Your task to perform on an android device: Go to notification settings Image 0: 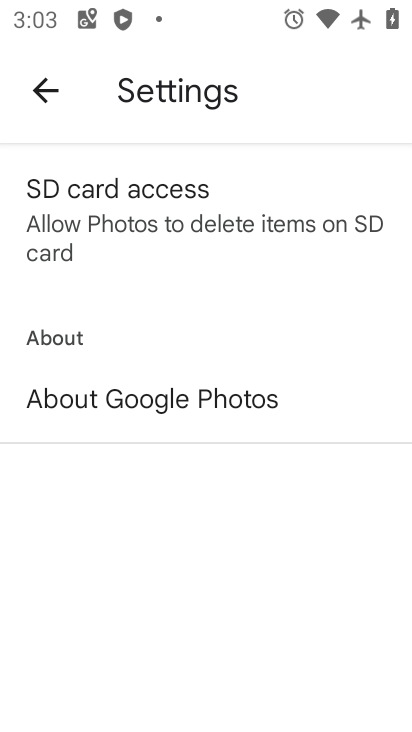
Step 0: press back button
Your task to perform on an android device: Go to notification settings Image 1: 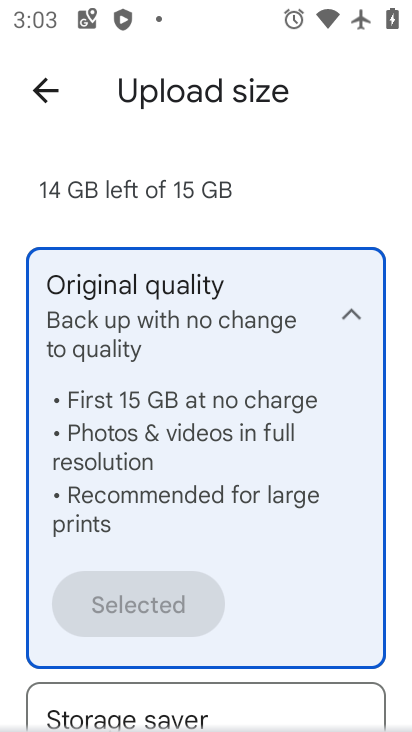
Step 1: press home button
Your task to perform on an android device: Go to notification settings Image 2: 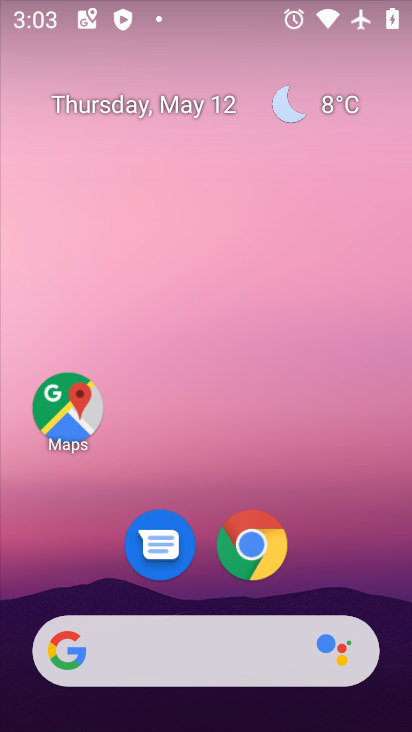
Step 2: drag from (396, 648) to (321, 139)
Your task to perform on an android device: Go to notification settings Image 3: 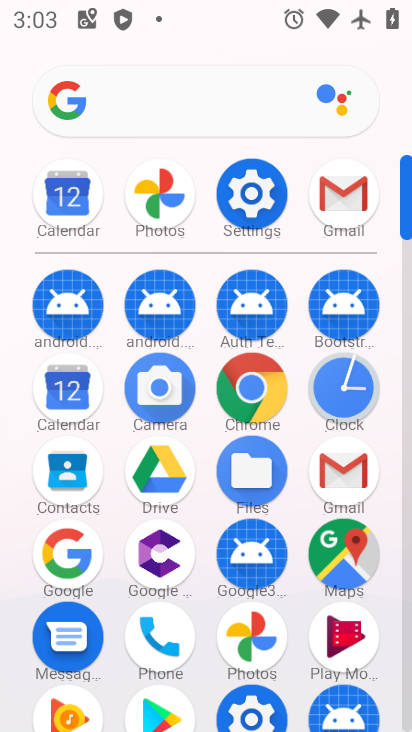
Step 3: click (407, 661)
Your task to perform on an android device: Go to notification settings Image 4: 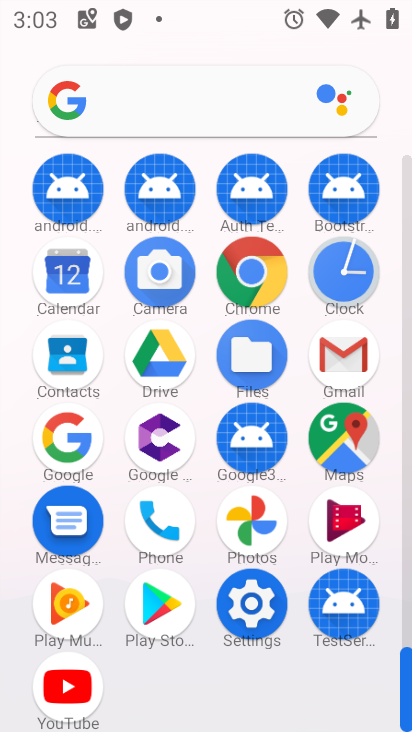
Step 4: click (253, 603)
Your task to perform on an android device: Go to notification settings Image 5: 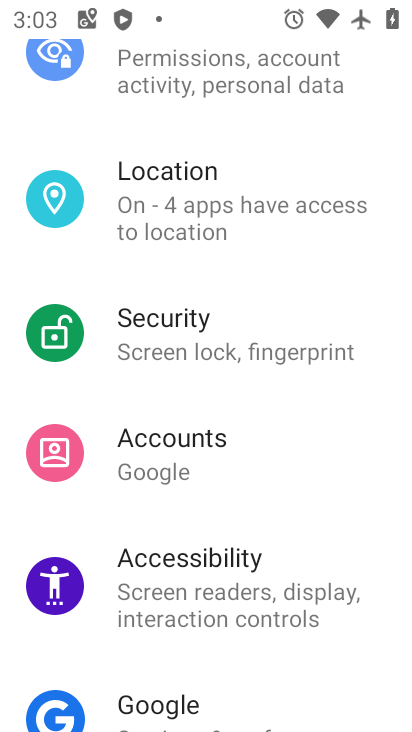
Step 5: drag from (353, 173) to (354, 592)
Your task to perform on an android device: Go to notification settings Image 6: 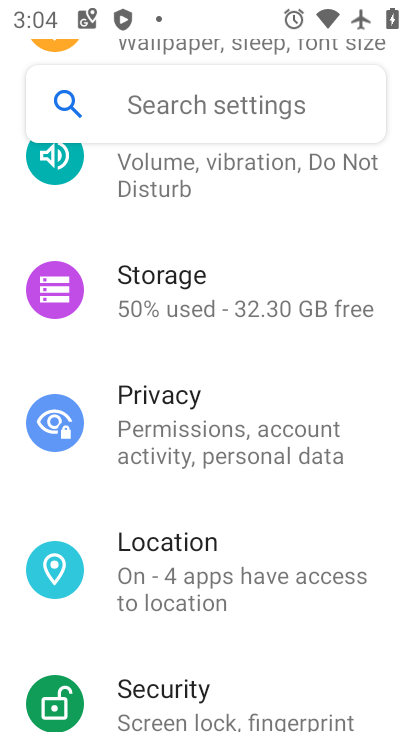
Step 6: drag from (346, 236) to (320, 536)
Your task to perform on an android device: Go to notification settings Image 7: 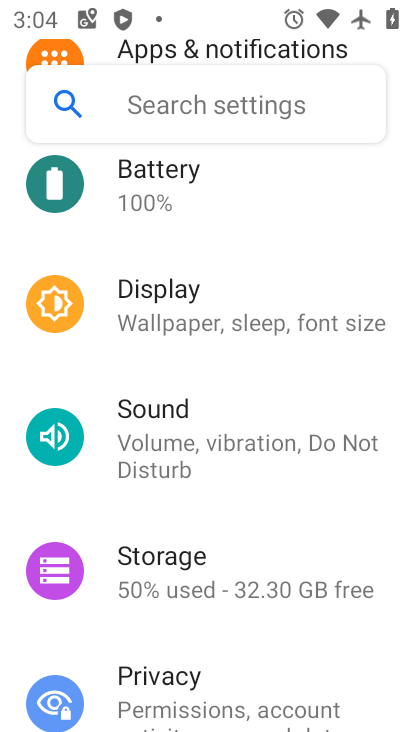
Step 7: drag from (285, 196) to (289, 576)
Your task to perform on an android device: Go to notification settings Image 8: 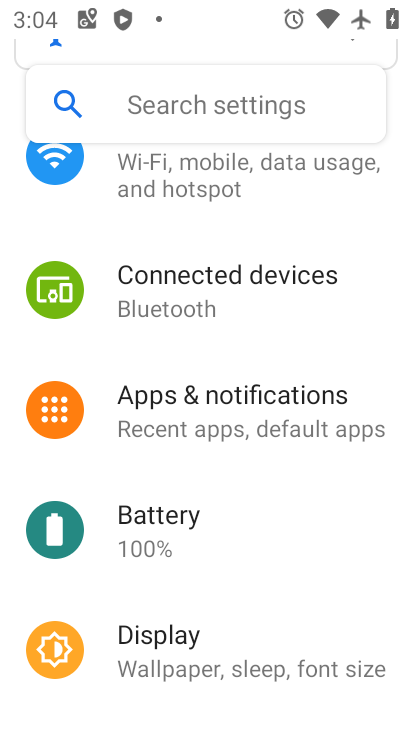
Step 8: click (186, 400)
Your task to perform on an android device: Go to notification settings Image 9: 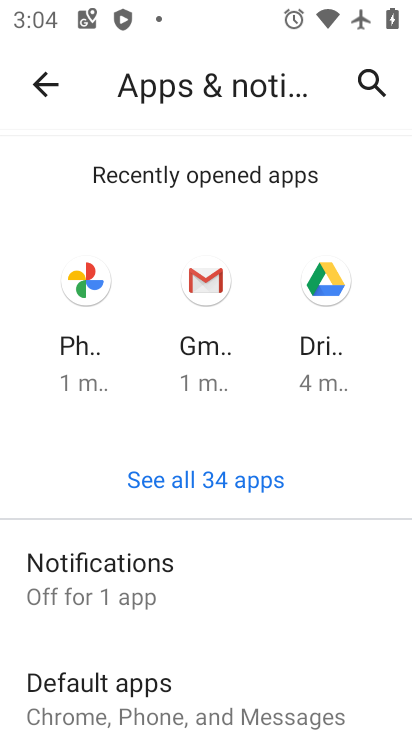
Step 9: drag from (216, 653) to (286, 198)
Your task to perform on an android device: Go to notification settings Image 10: 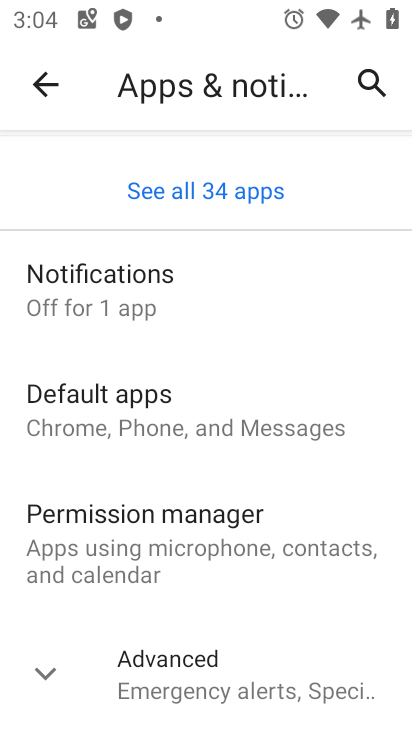
Step 10: click (59, 290)
Your task to perform on an android device: Go to notification settings Image 11: 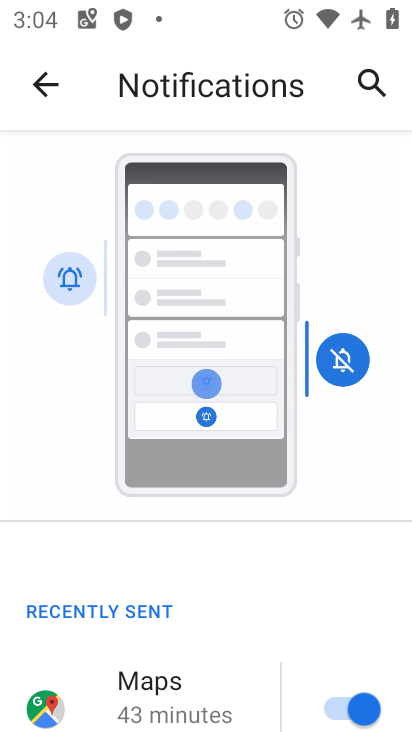
Step 11: drag from (287, 650) to (280, 89)
Your task to perform on an android device: Go to notification settings Image 12: 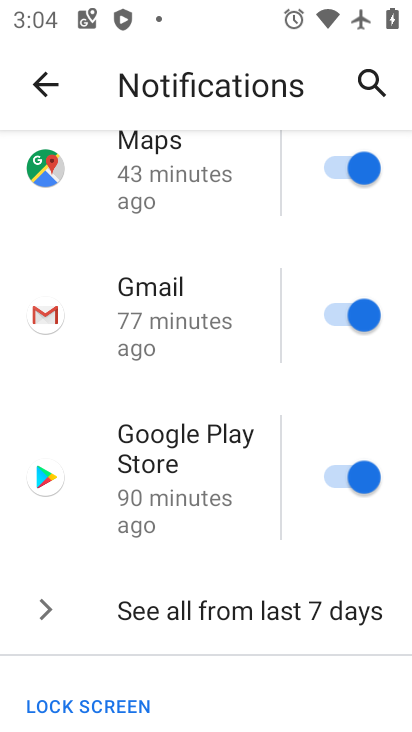
Step 12: drag from (266, 618) to (260, 97)
Your task to perform on an android device: Go to notification settings Image 13: 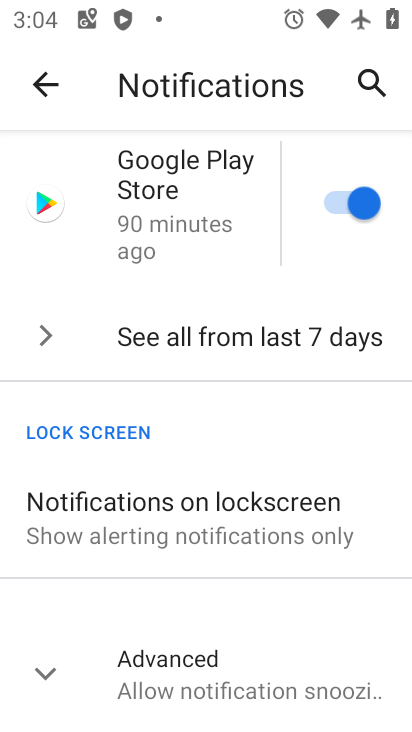
Step 13: click (33, 673)
Your task to perform on an android device: Go to notification settings Image 14: 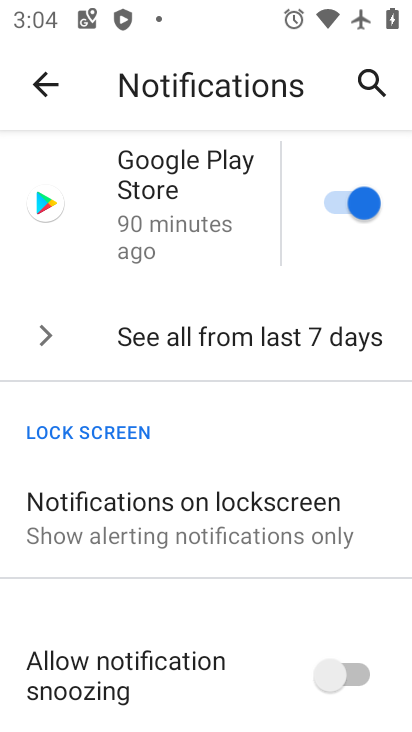
Step 14: task complete